Your task to perform on an android device: Open my contact list Image 0: 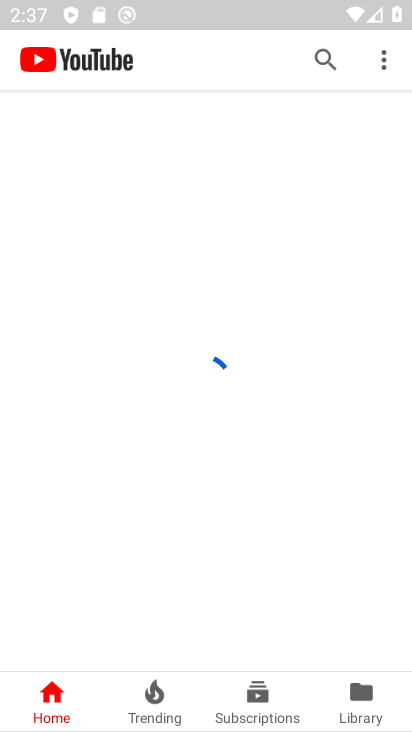
Step 0: drag from (297, 614) to (401, 182)
Your task to perform on an android device: Open my contact list Image 1: 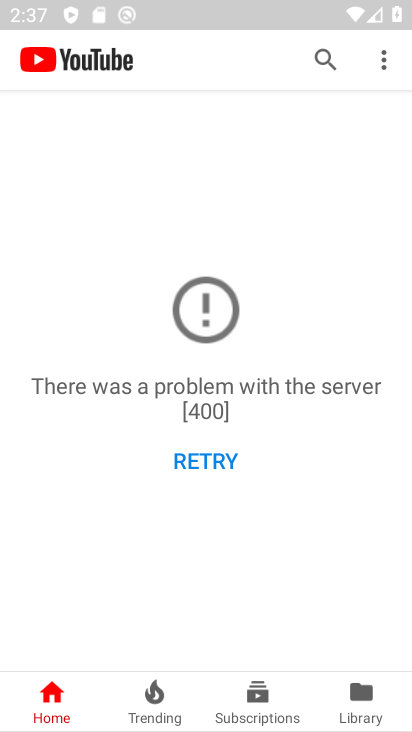
Step 1: press back button
Your task to perform on an android device: Open my contact list Image 2: 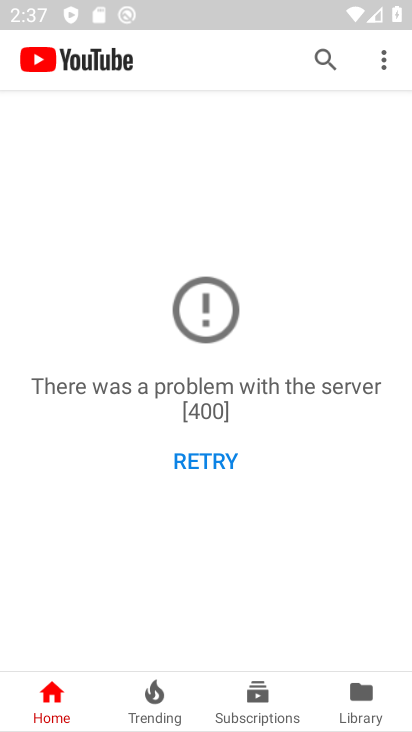
Step 2: click (393, 260)
Your task to perform on an android device: Open my contact list Image 3: 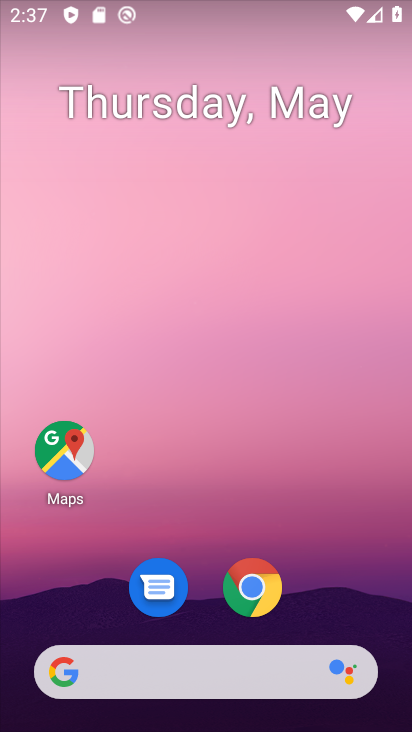
Step 3: drag from (310, 544) to (240, 21)
Your task to perform on an android device: Open my contact list Image 4: 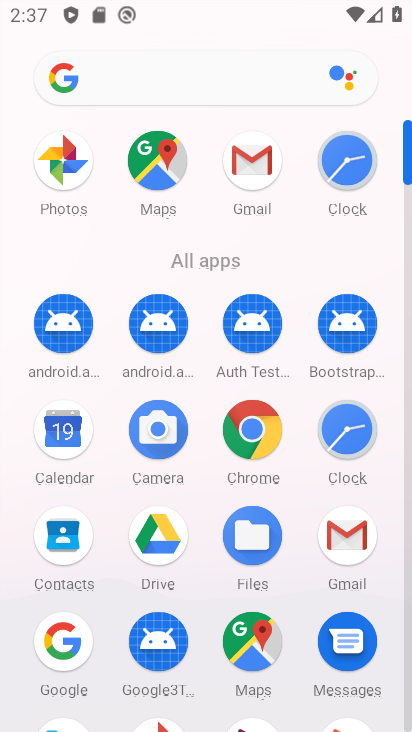
Step 4: click (61, 528)
Your task to perform on an android device: Open my contact list Image 5: 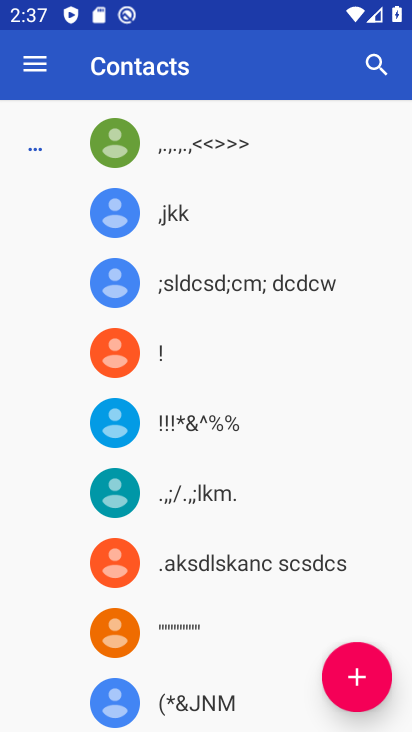
Step 5: task complete